Your task to perform on an android device: see tabs open on other devices in the chrome app Image 0: 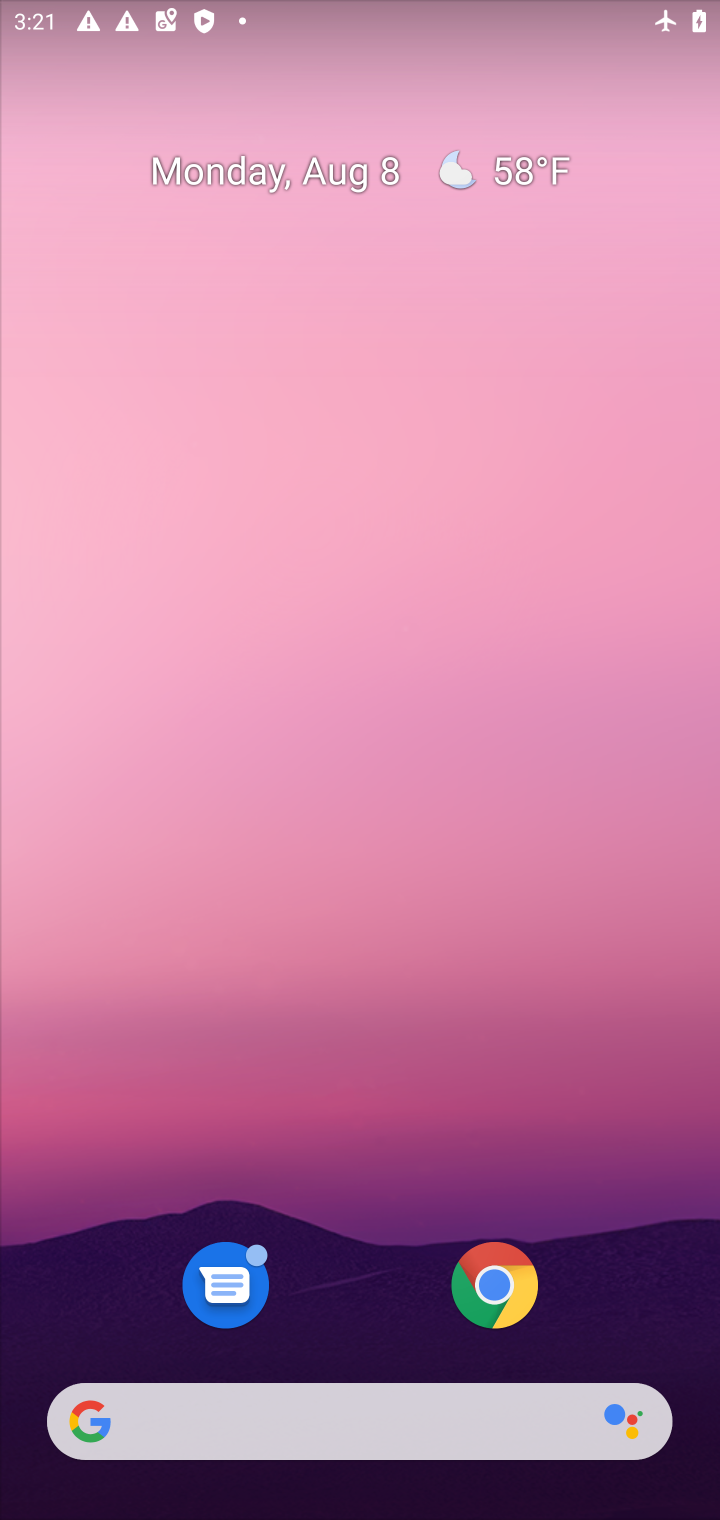
Step 0: click (517, 1262)
Your task to perform on an android device: see tabs open on other devices in the chrome app Image 1: 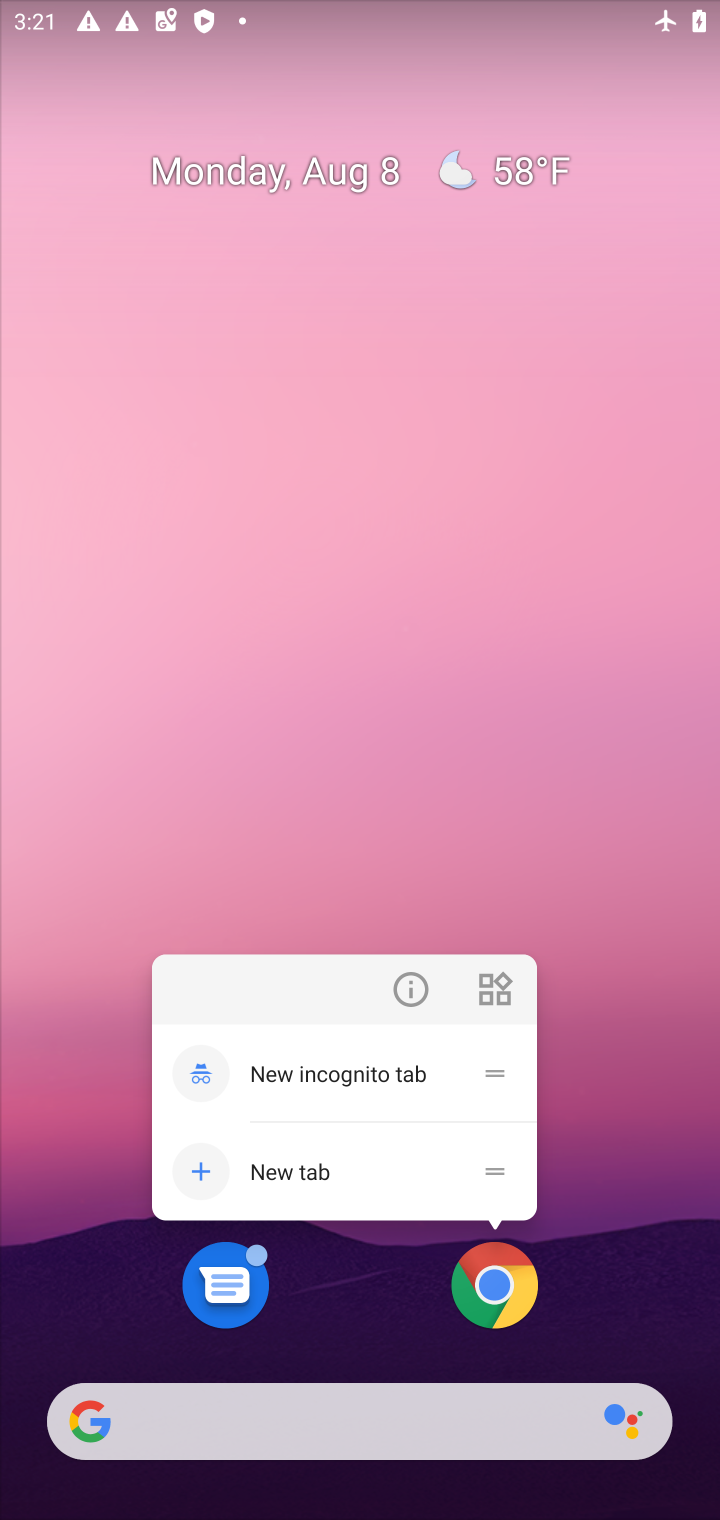
Step 1: click (494, 1287)
Your task to perform on an android device: see tabs open on other devices in the chrome app Image 2: 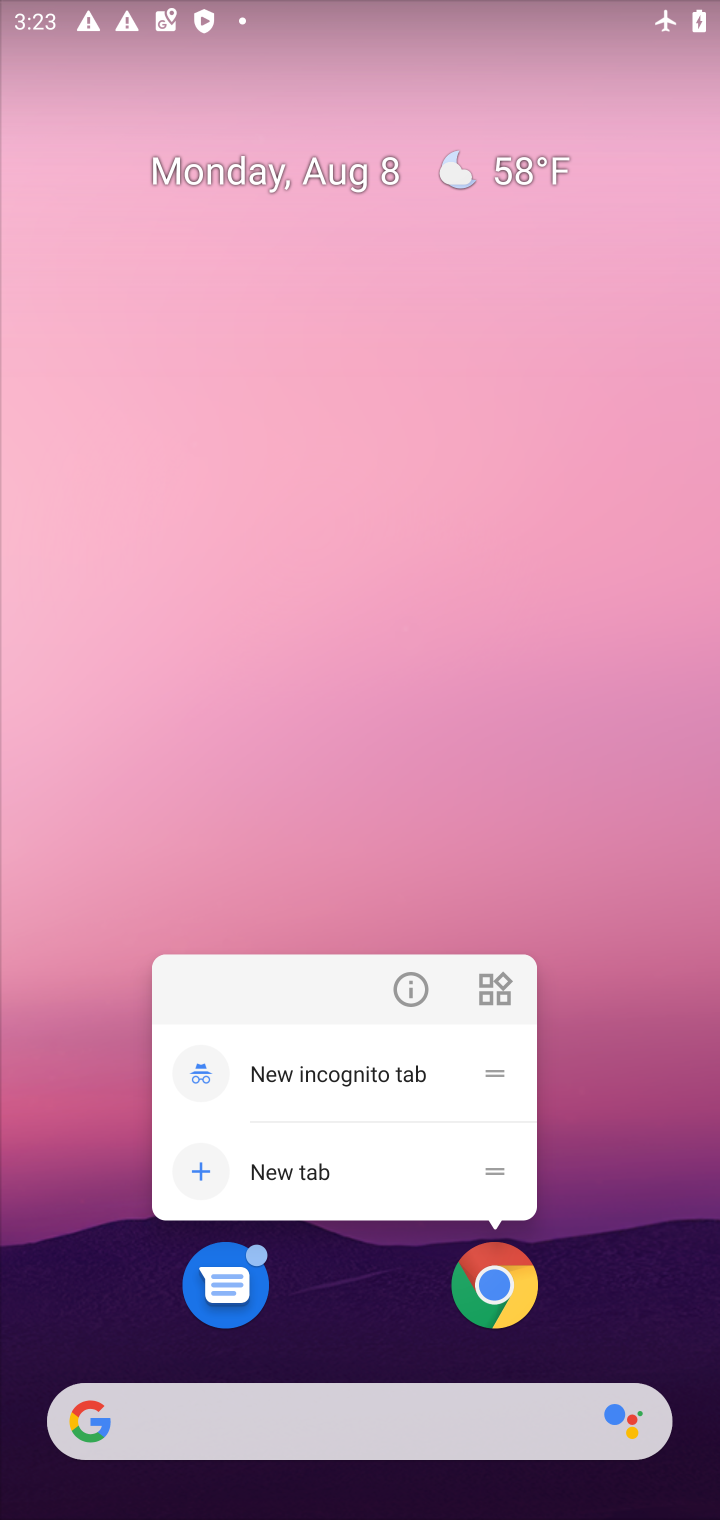
Step 2: click (485, 1263)
Your task to perform on an android device: see tabs open on other devices in the chrome app Image 3: 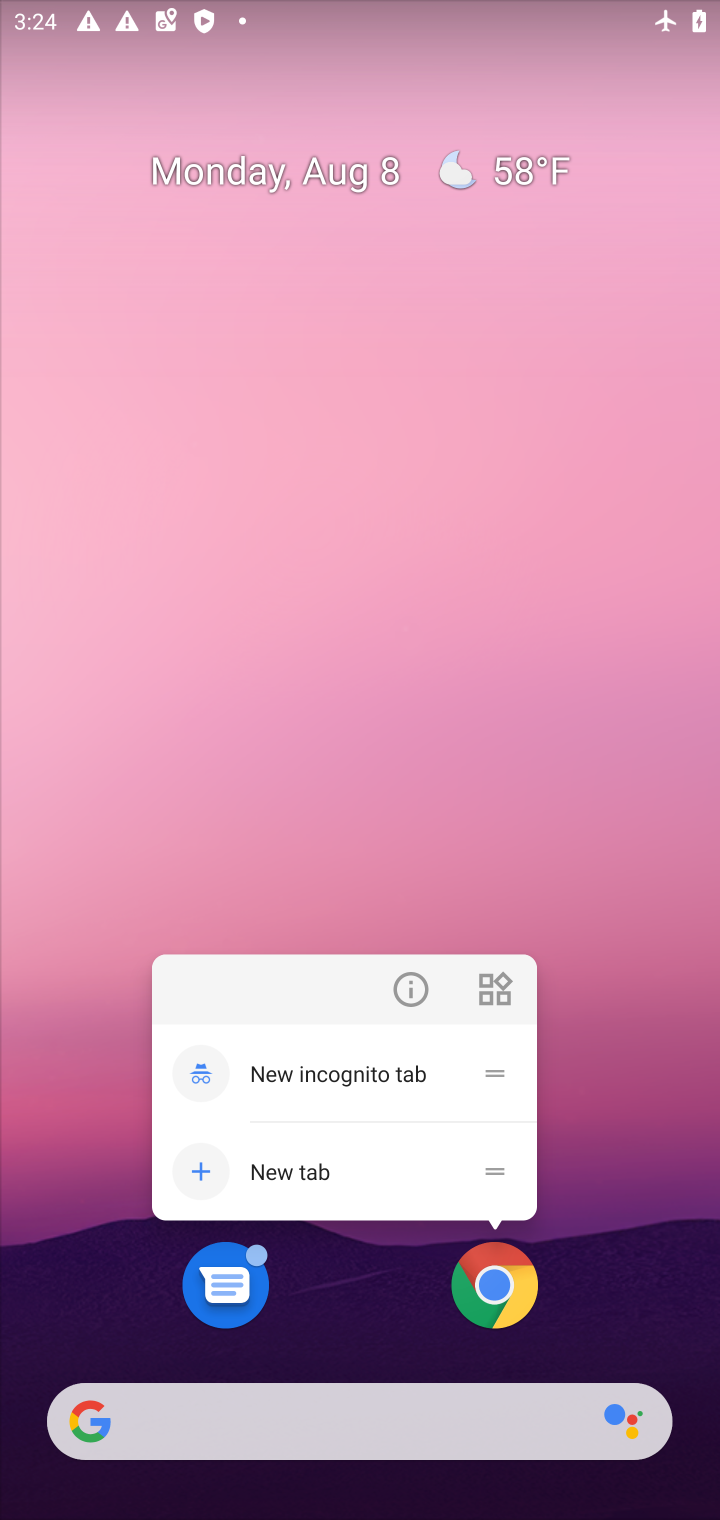
Step 3: click (504, 1263)
Your task to perform on an android device: see tabs open on other devices in the chrome app Image 4: 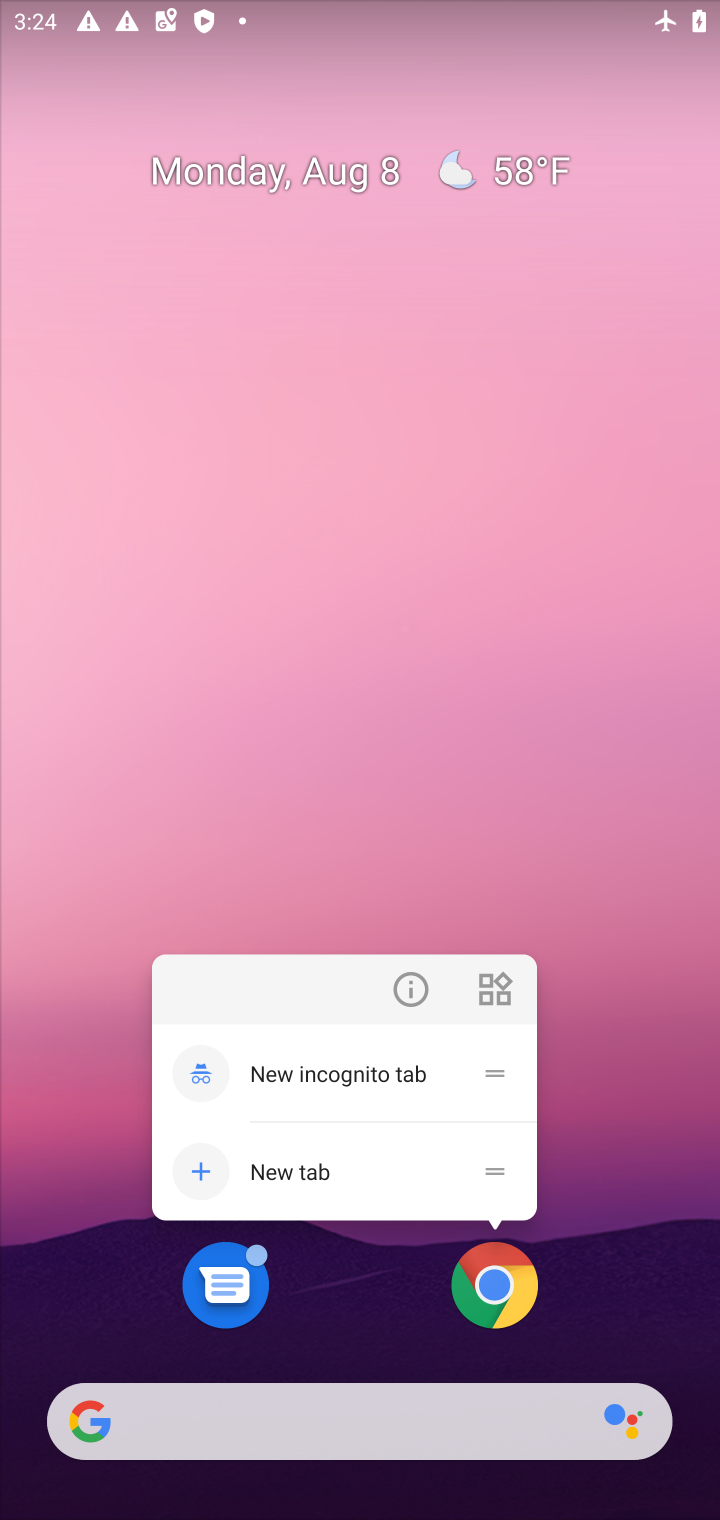
Step 4: click (522, 1273)
Your task to perform on an android device: see tabs open on other devices in the chrome app Image 5: 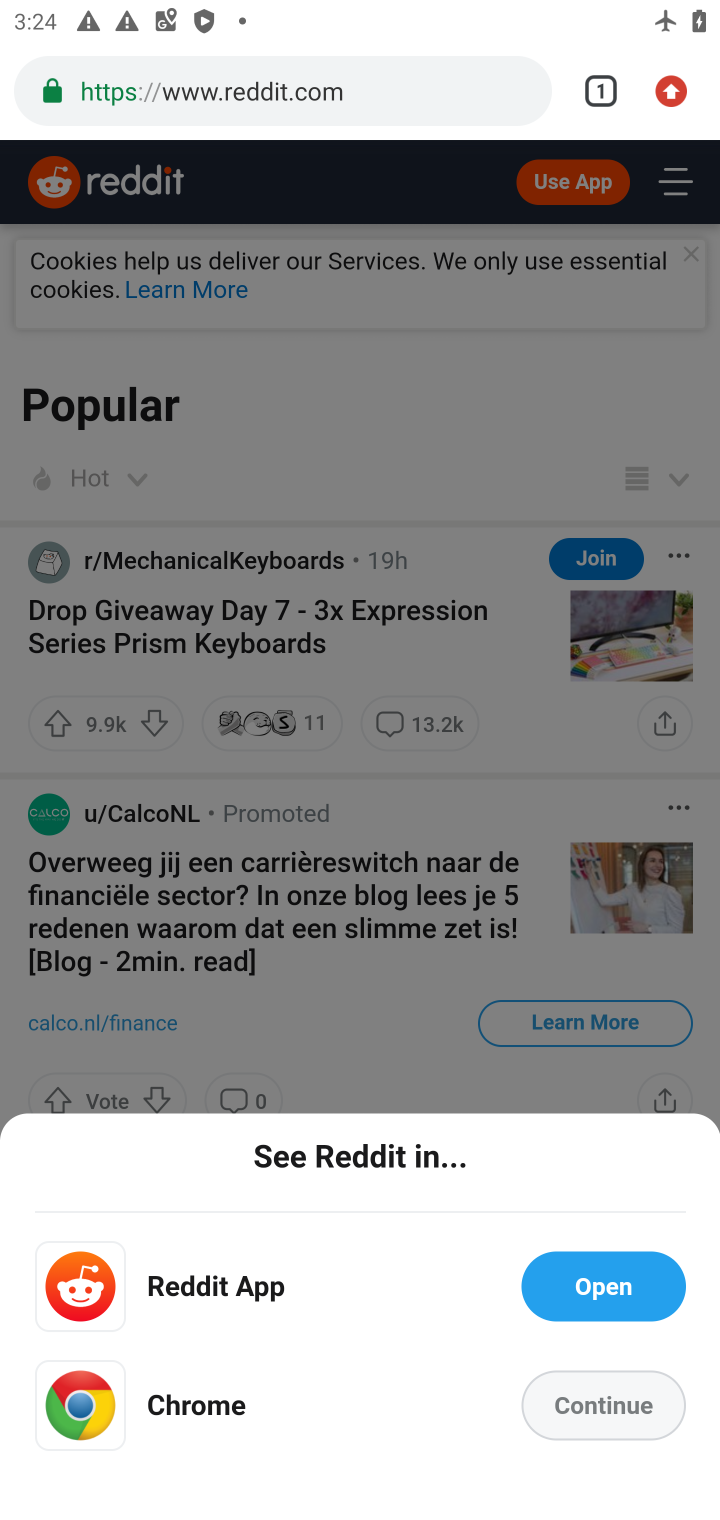
Step 5: task complete